Your task to perform on an android device: set an alarm Image 0: 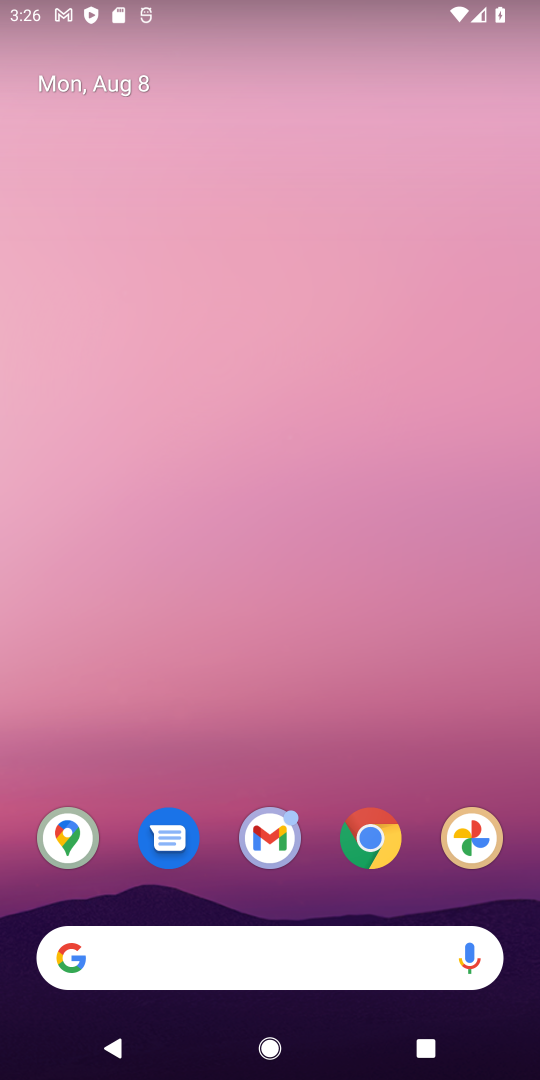
Step 0: drag from (241, 963) to (288, 371)
Your task to perform on an android device: set an alarm Image 1: 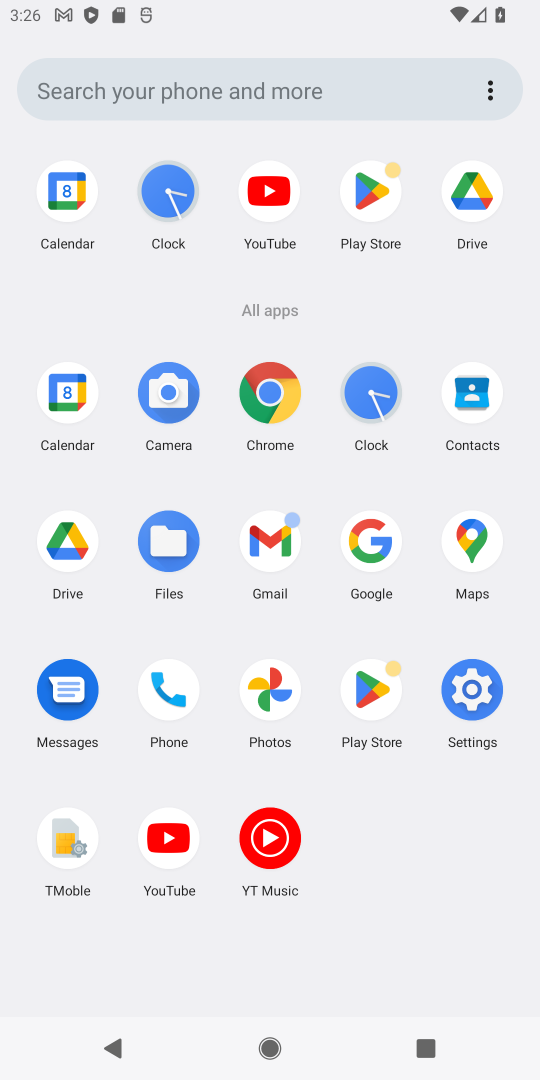
Step 1: click (168, 193)
Your task to perform on an android device: set an alarm Image 2: 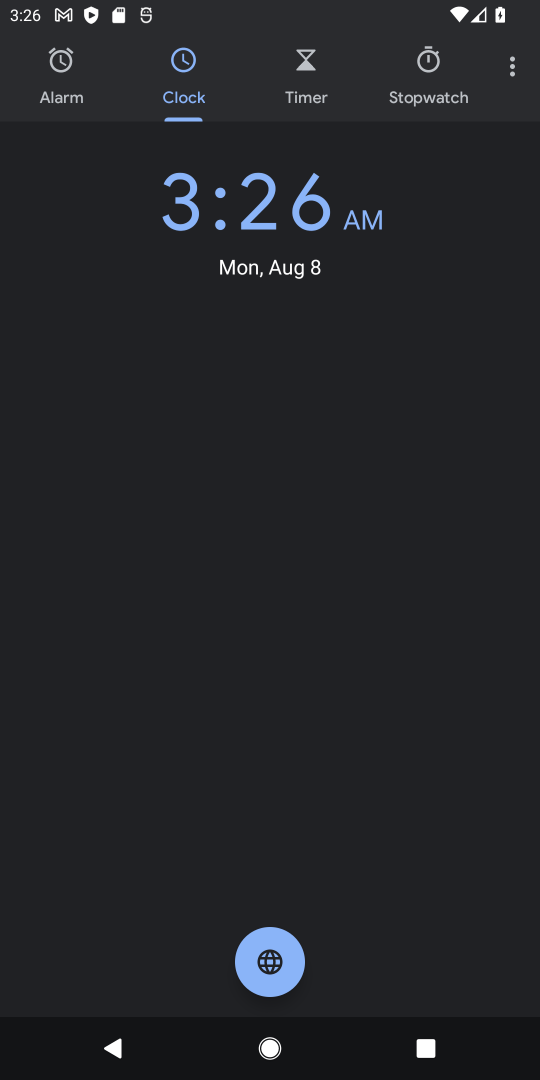
Step 2: click (63, 68)
Your task to perform on an android device: set an alarm Image 3: 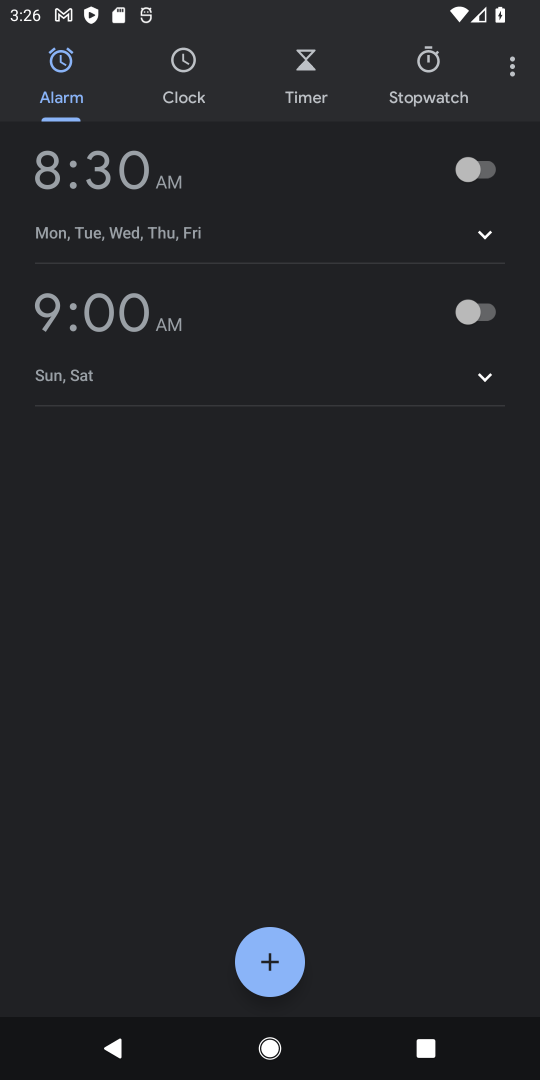
Step 3: click (270, 968)
Your task to perform on an android device: set an alarm Image 4: 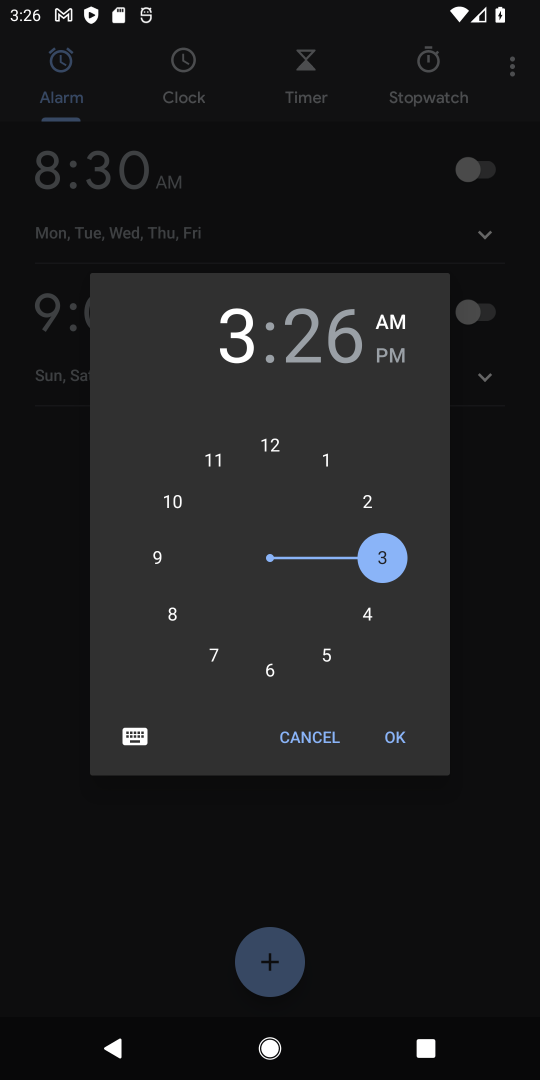
Step 4: click (163, 571)
Your task to perform on an android device: set an alarm Image 5: 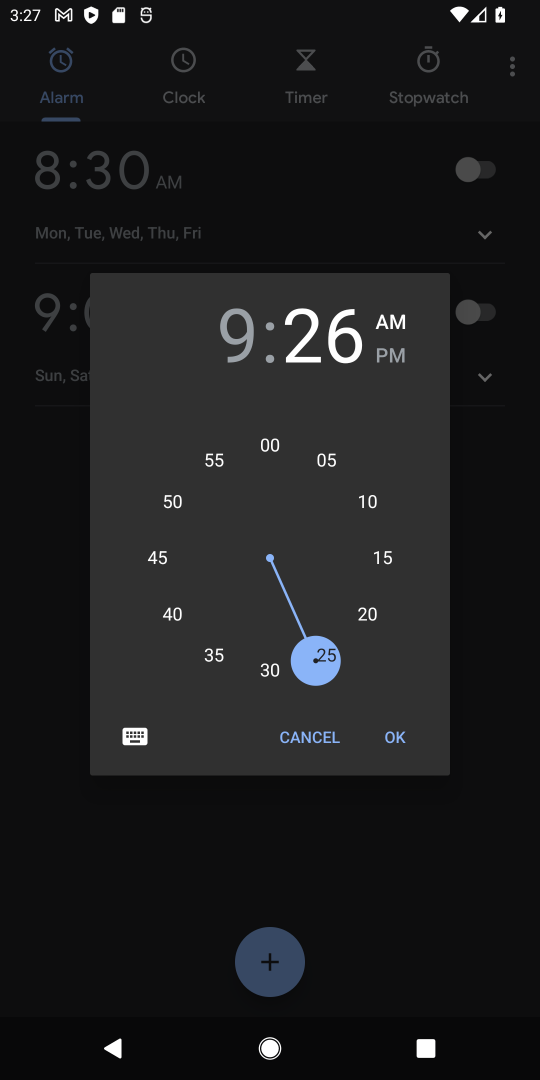
Step 5: click (195, 484)
Your task to perform on an android device: set an alarm Image 6: 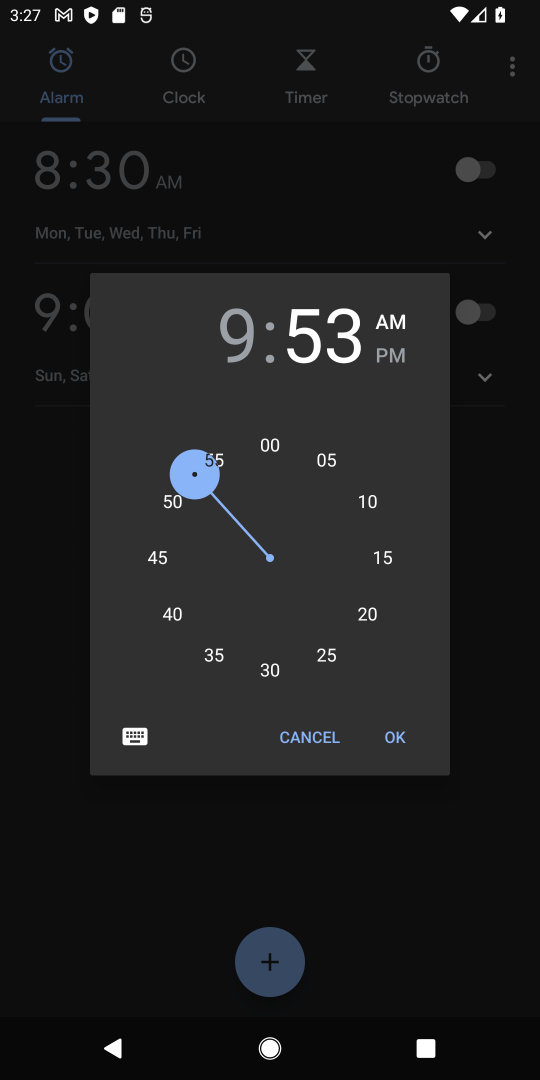
Step 6: click (393, 364)
Your task to perform on an android device: set an alarm Image 7: 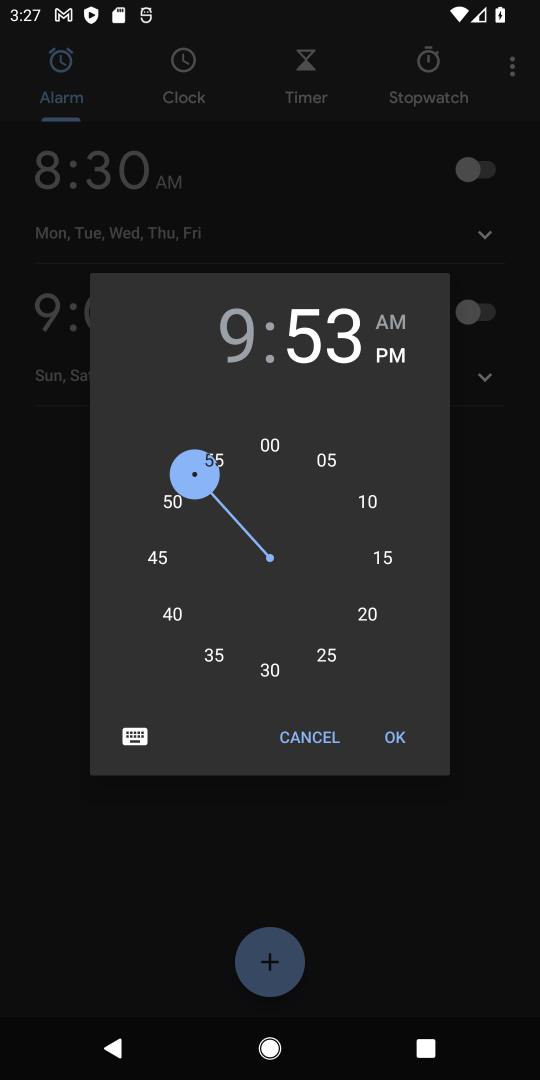
Step 7: click (401, 746)
Your task to perform on an android device: set an alarm Image 8: 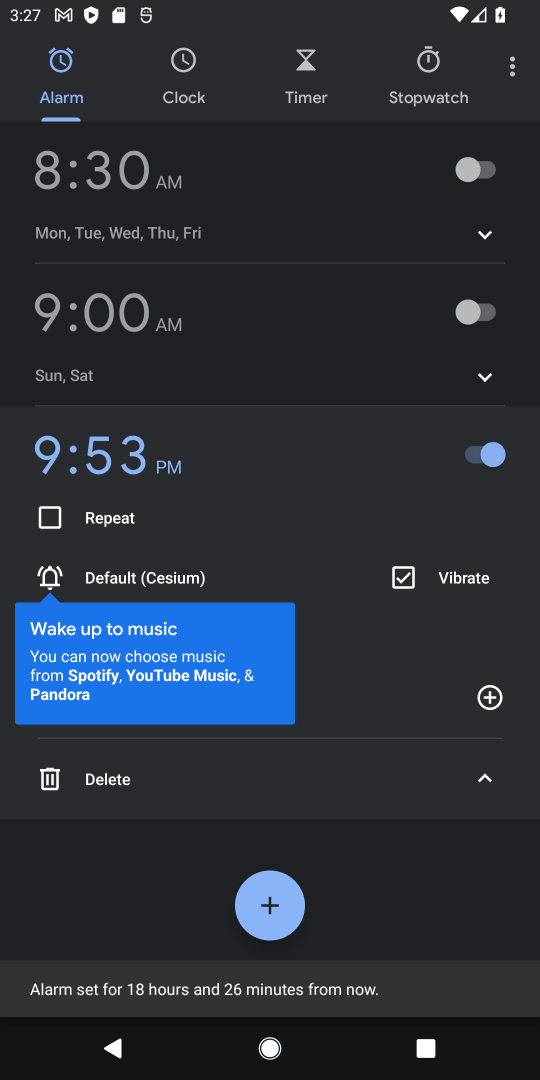
Step 8: click (477, 785)
Your task to perform on an android device: set an alarm Image 9: 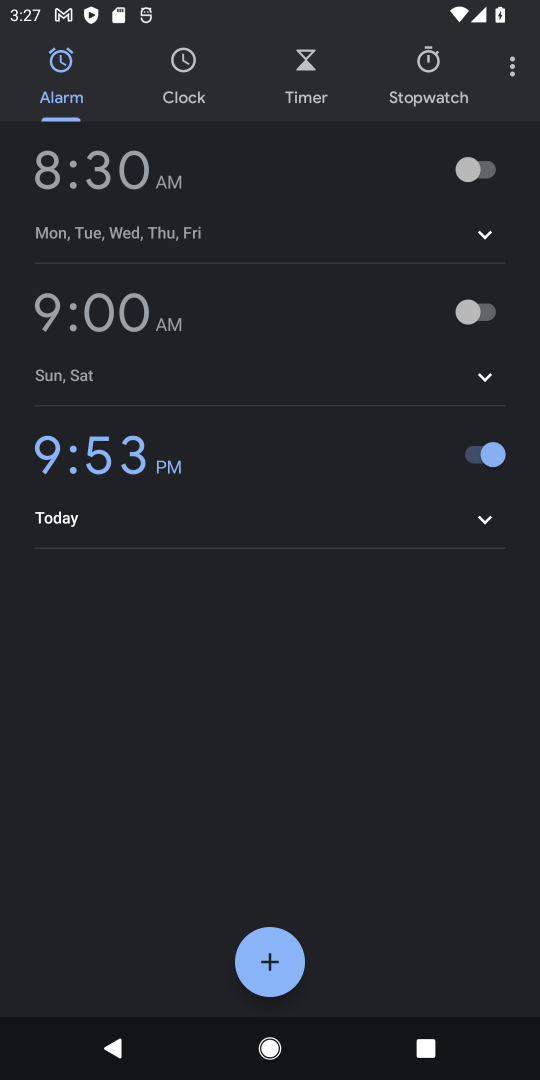
Step 9: task complete